Your task to perform on an android device: What's the weather going to be this weekend? Image 0: 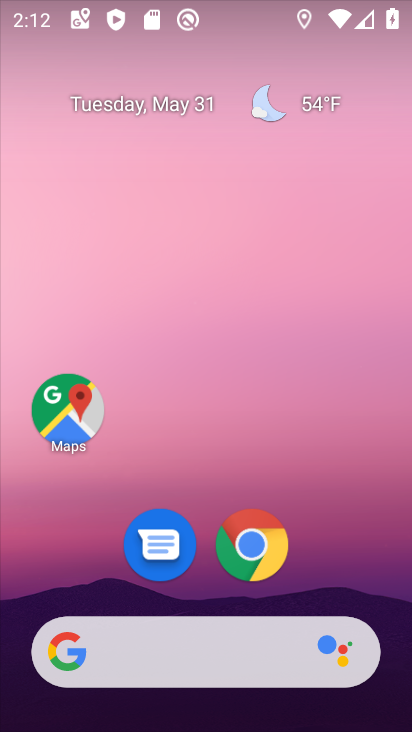
Step 0: drag from (363, 539) to (314, 141)
Your task to perform on an android device: What's the weather going to be this weekend? Image 1: 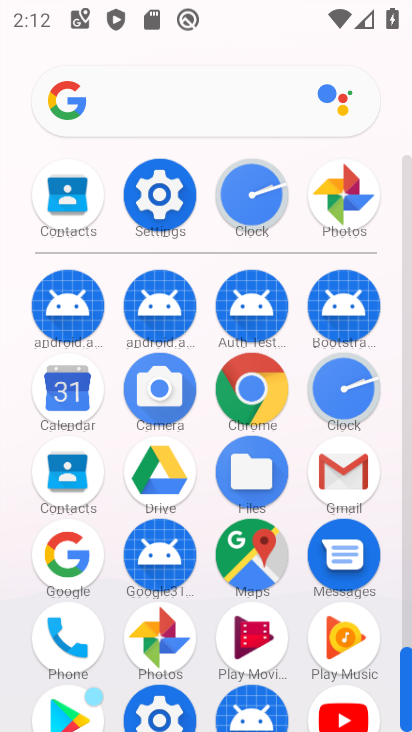
Step 1: drag from (195, 137) to (212, 682)
Your task to perform on an android device: What's the weather going to be this weekend? Image 2: 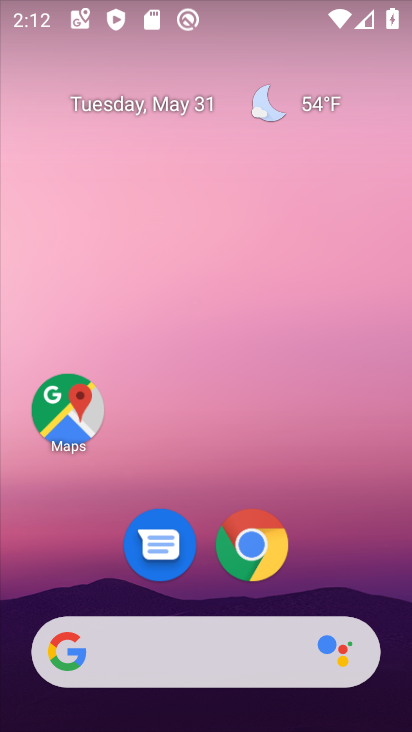
Step 2: click (327, 106)
Your task to perform on an android device: What's the weather going to be this weekend? Image 3: 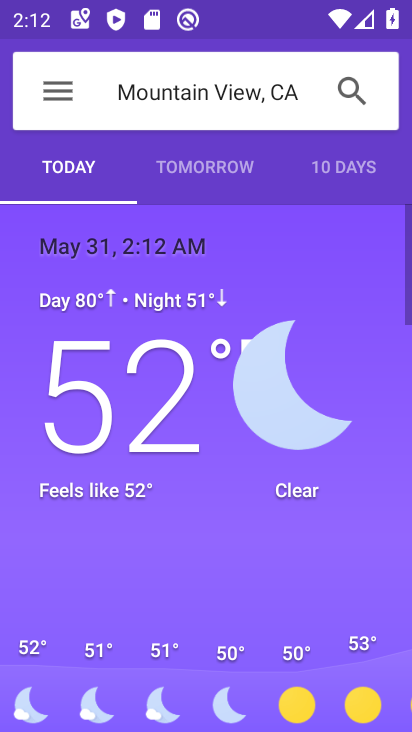
Step 3: click (261, 169)
Your task to perform on an android device: What's the weather going to be this weekend? Image 4: 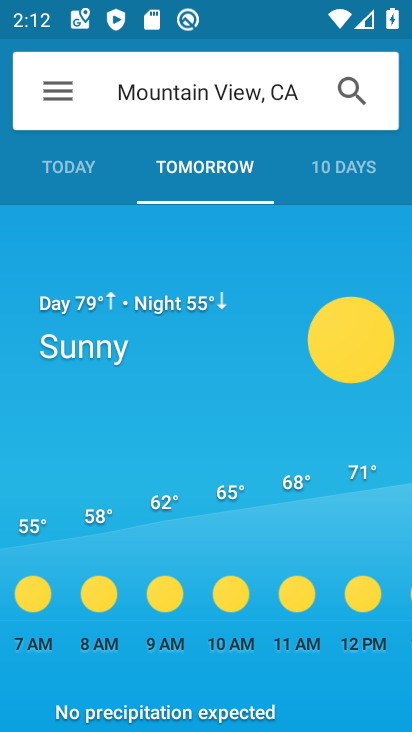
Step 4: click (315, 190)
Your task to perform on an android device: What's the weather going to be this weekend? Image 5: 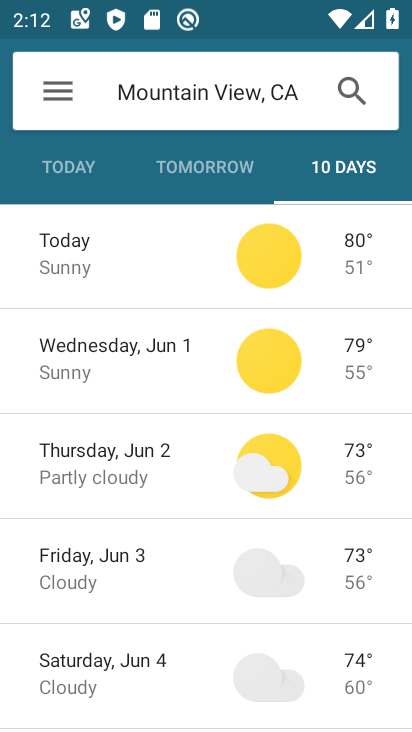
Step 5: task complete